Your task to perform on an android device: Open Google Image 0: 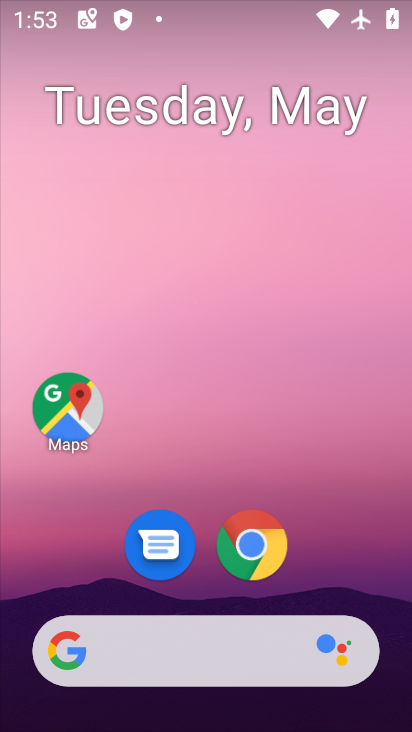
Step 0: click (254, 545)
Your task to perform on an android device: Open Google Image 1: 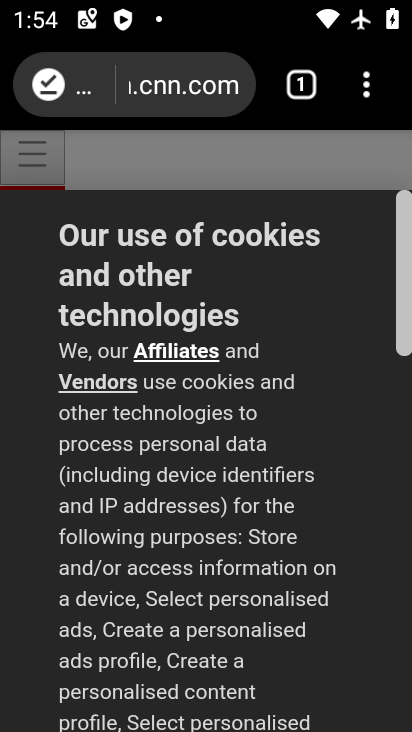
Step 1: task complete